Your task to perform on an android device: Open Wikipedia Image 0: 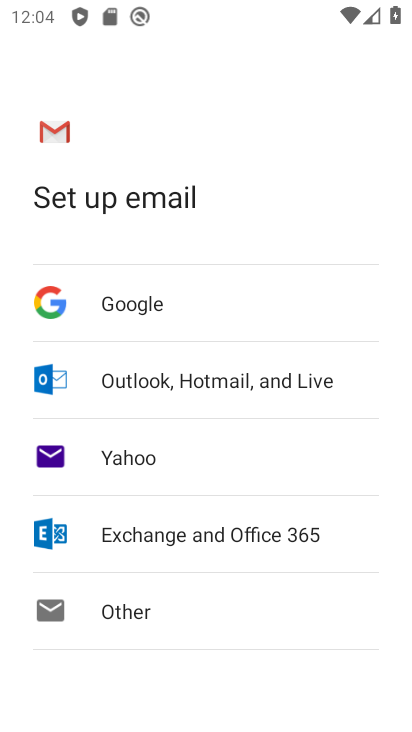
Step 0: press home button
Your task to perform on an android device: Open Wikipedia Image 1: 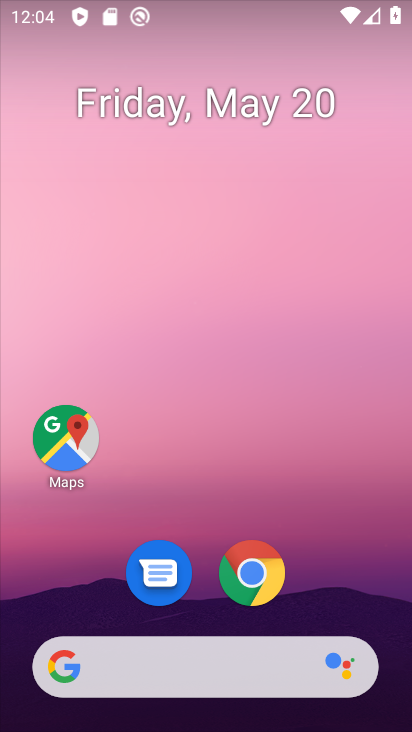
Step 1: click (252, 572)
Your task to perform on an android device: Open Wikipedia Image 2: 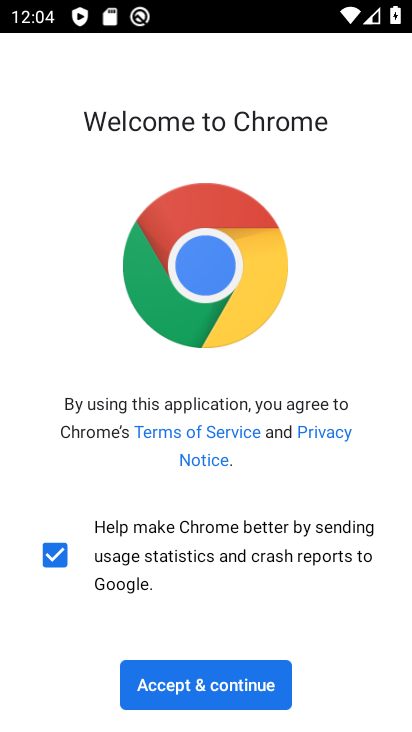
Step 2: click (192, 686)
Your task to perform on an android device: Open Wikipedia Image 3: 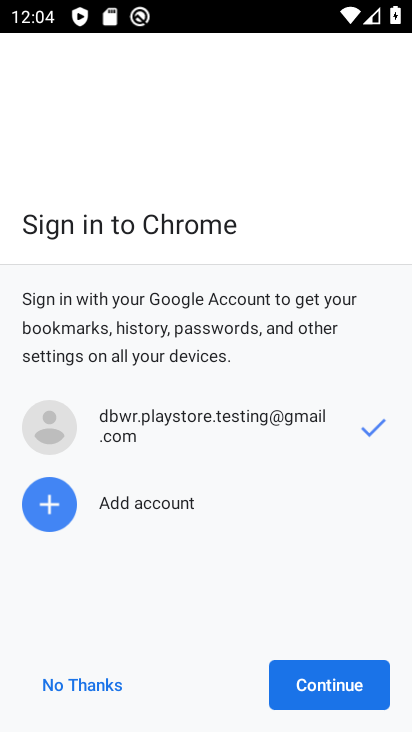
Step 3: click (287, 676)
Your task to perform on an android device: Open Wikipedia Image 4: 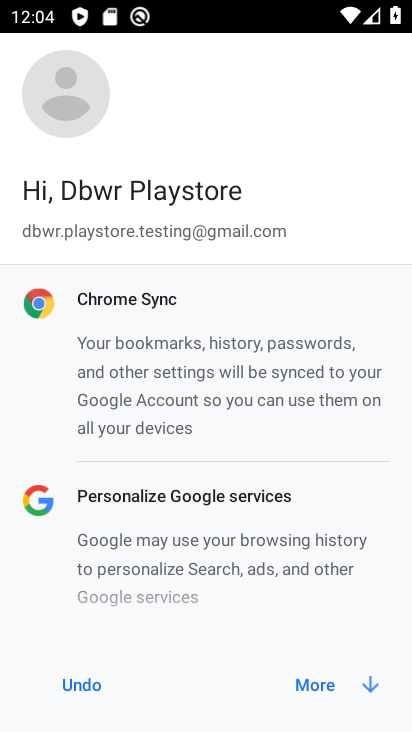
Step 4: click (368, 678)
Your task to perform on an android device: Open Wikipedia Image 5: 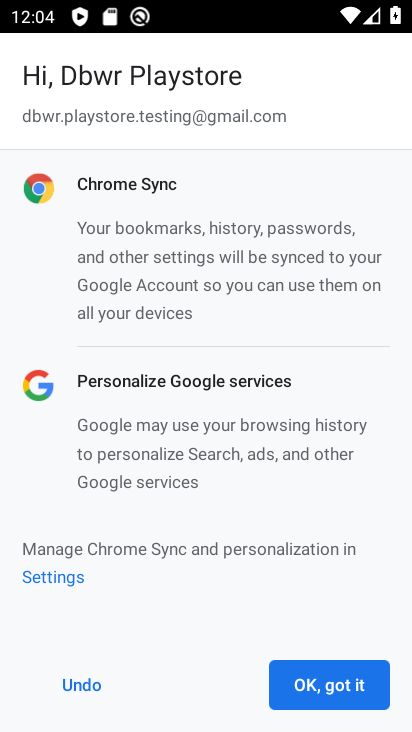
Step 5: click (329, 679)
Your task to perform on an android device: Open Wikipedia Image 6: 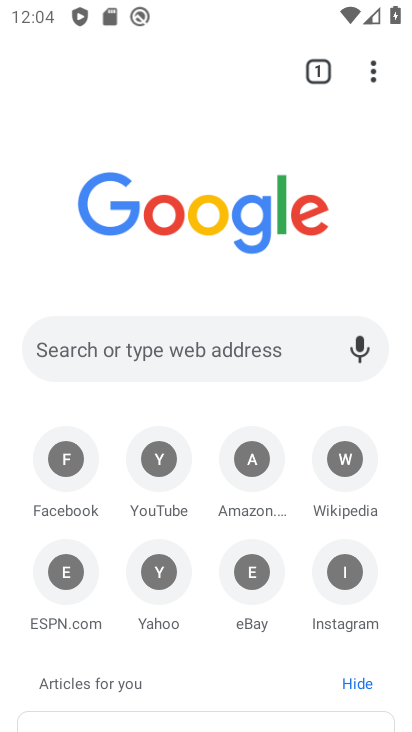
Step 6: click (370, 64)
Your task to perform on an android device: Open Wikipedia Image 7: 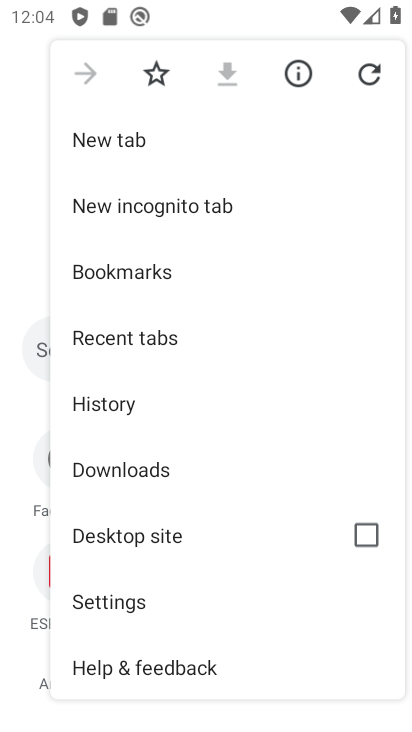
Step 7: click (28, 125)
Your task to perform on an android device: Open Wikipedia Image 8: 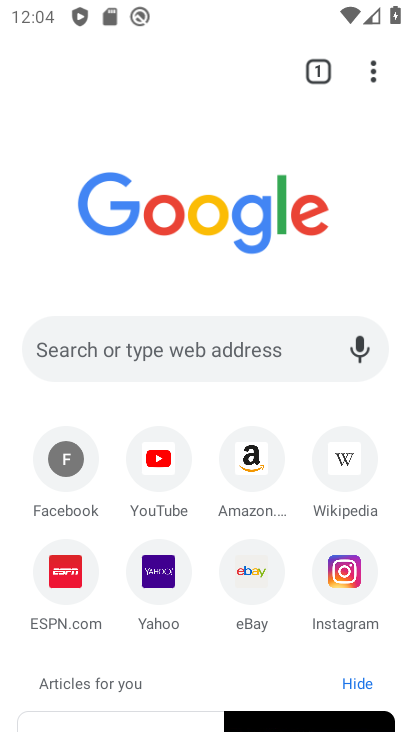
Step 8: click (348, 477)
Your task to perform on an android device: Open Wikipedia Image 9: 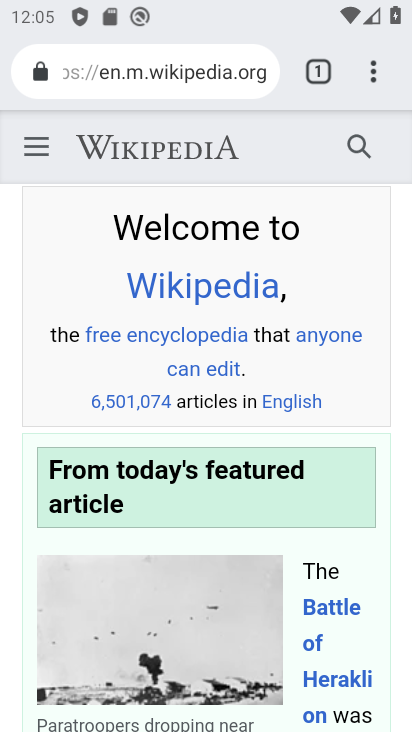
Step 9: task complete